Your task to perform on an android device: Open settings on Google Maps Image 0: 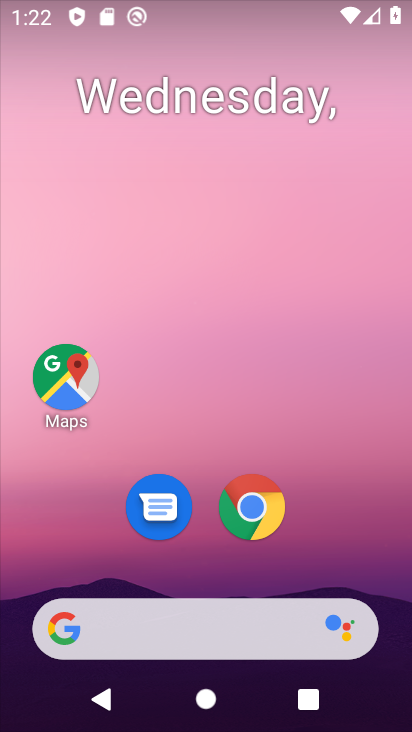
Step 0: drag from (343, 549) to (318, 207)
Your task to perform on an android device: Open settings on Google Maps Image 1: 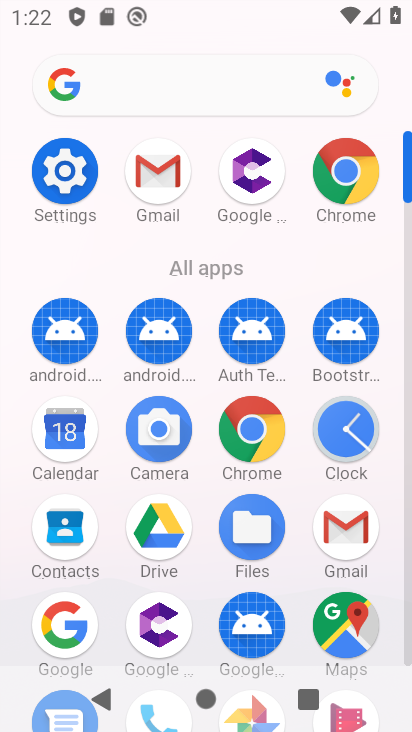
Step 1: click (332, 629)
Your task to perform on an android device: Open settings on Google Maps Image 2: 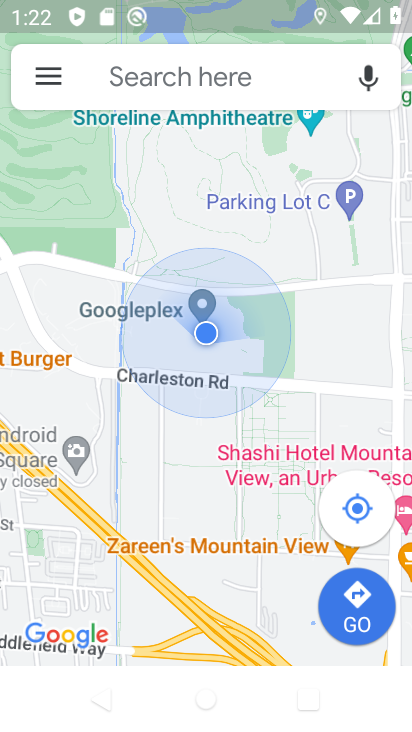
Step 2: task complete